Your task to perform on an android device: visit the assistant section in the google photos Image 0: 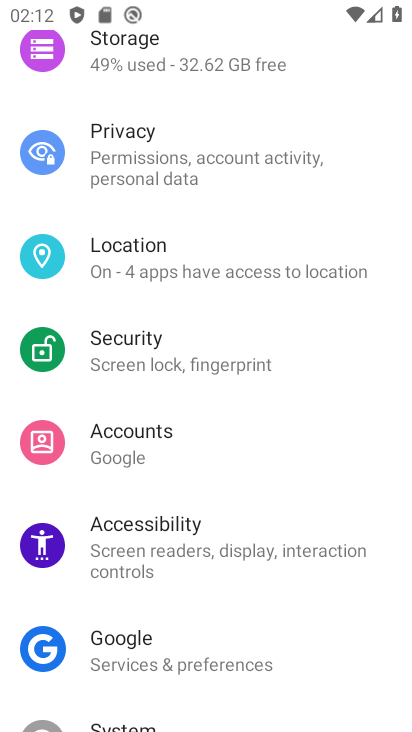
Step 0: press home button
Your task to perform on an android device: visit the assistant section in the google photos Image 1: 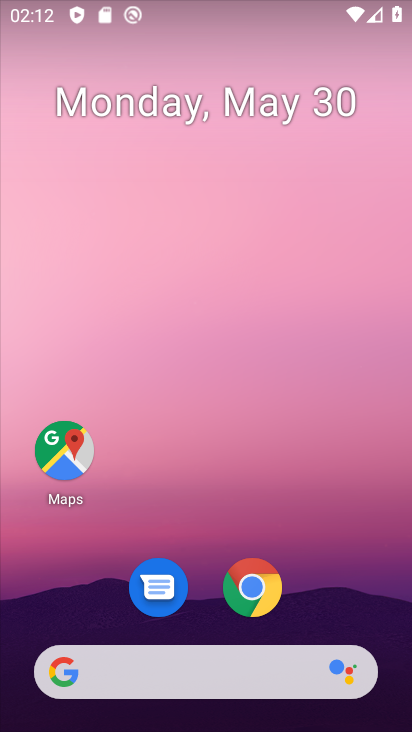
Step 1: drag from (122, 723) to (206, 20)
Your task to perform on an android device: visit the assistant section in the google photos Image 2: 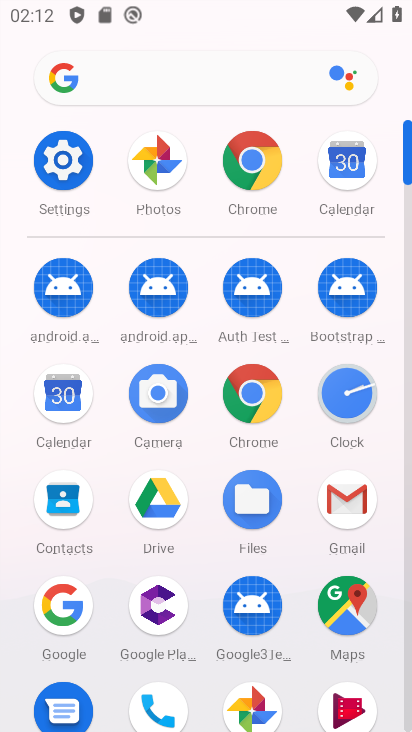
Step 2: click (148, 161)
Your task to perform on an android device: visit the assistant section in the google photos Image 3: 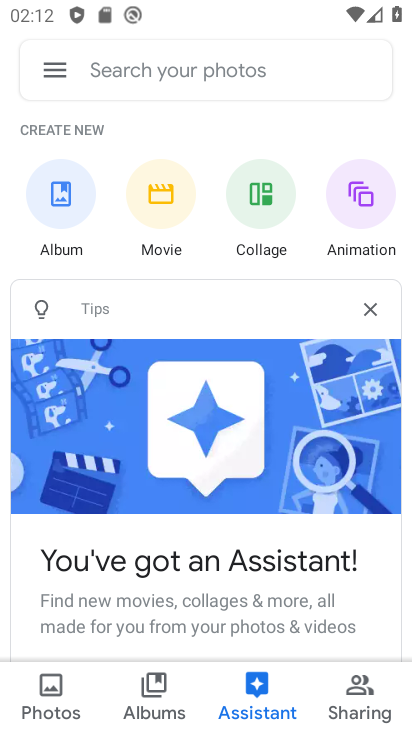
Step 3: task complete